Your task to perform on an android device: toggle sleep mode Image 0: 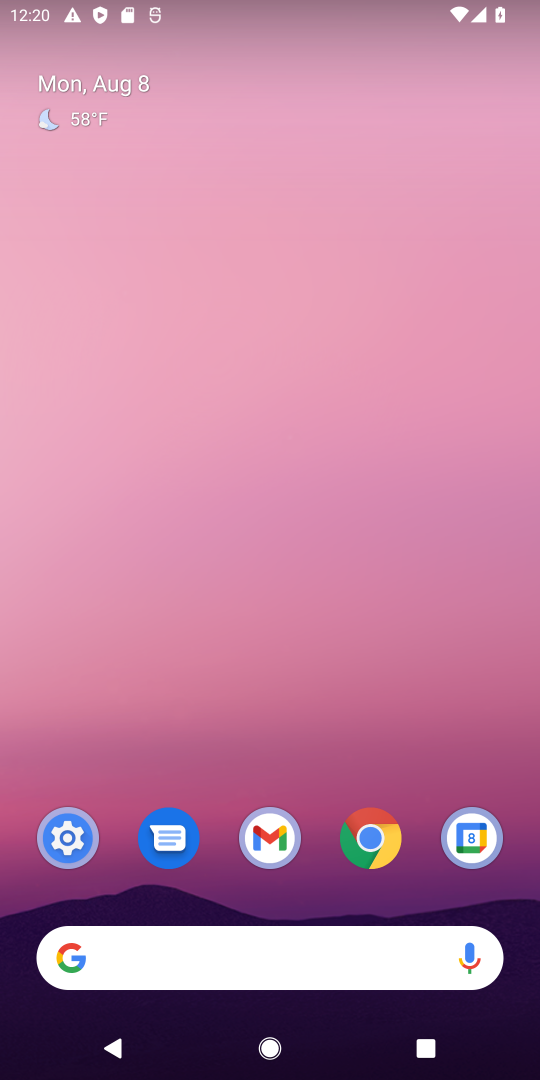
Step 0: press home button
Your task to perform on an android device: toggle sleep mode Image 1: 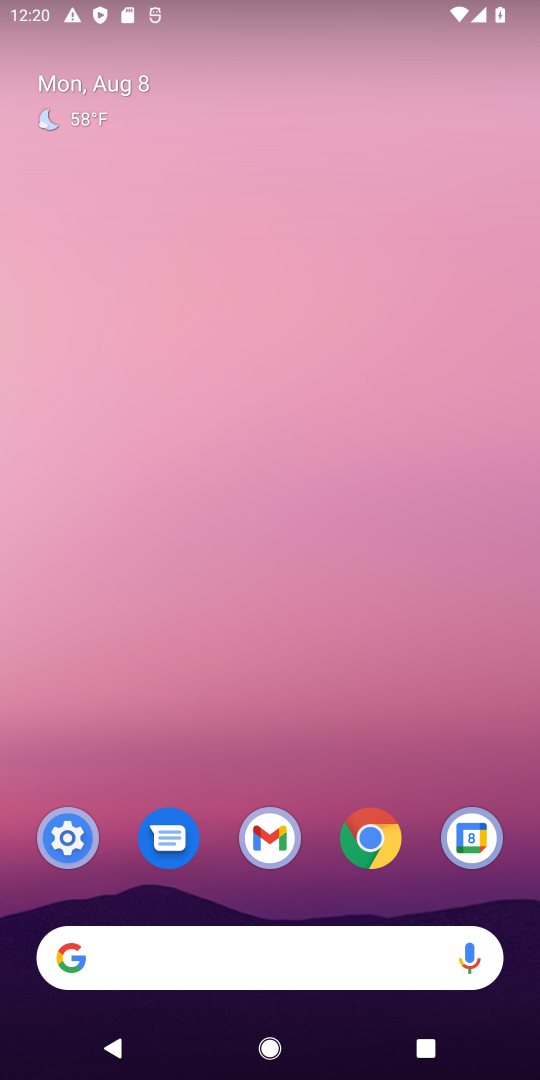
Step 1: drag from (341, 887) to (344, 97)
Your task to perform on an android device: toggle sleep mode Image 2: 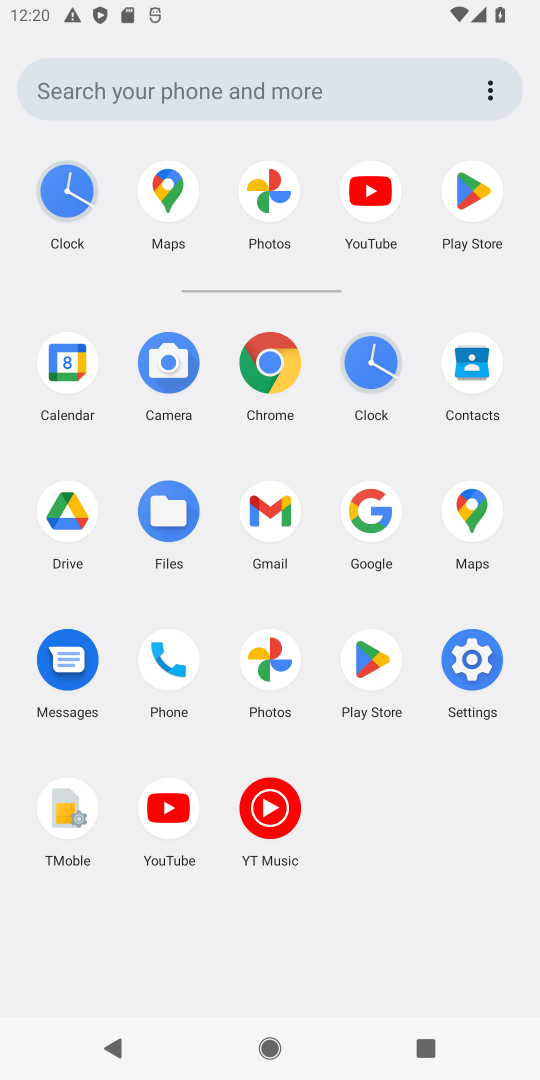
Step 2: click (477, 673)
Your task to perform on an android device: toggle sleep mode Image 3: 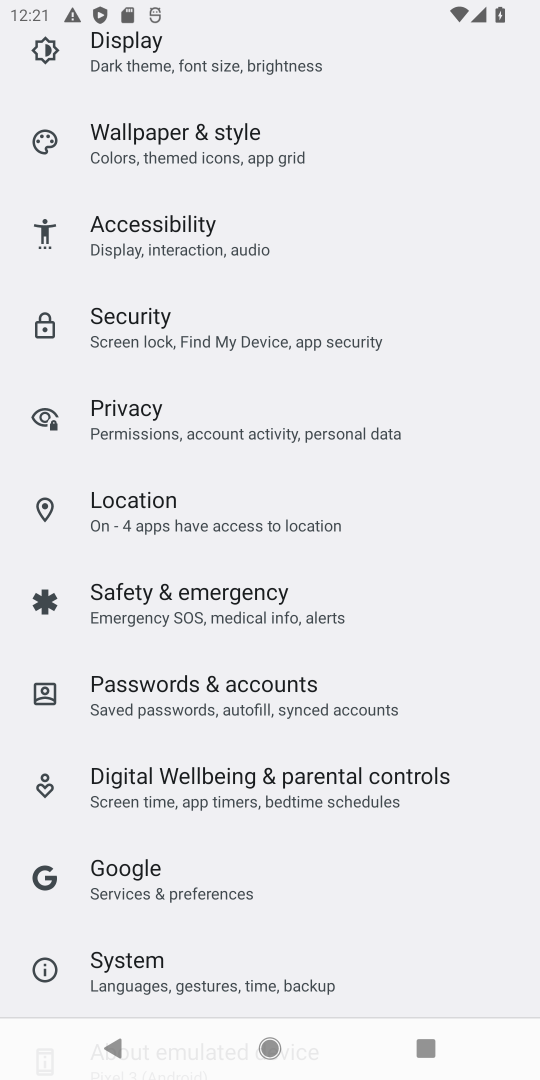
Step 3: drag from (452, 891) to (419, 351)
Your task to perform on an android device: toggle sleep mode Image 4: 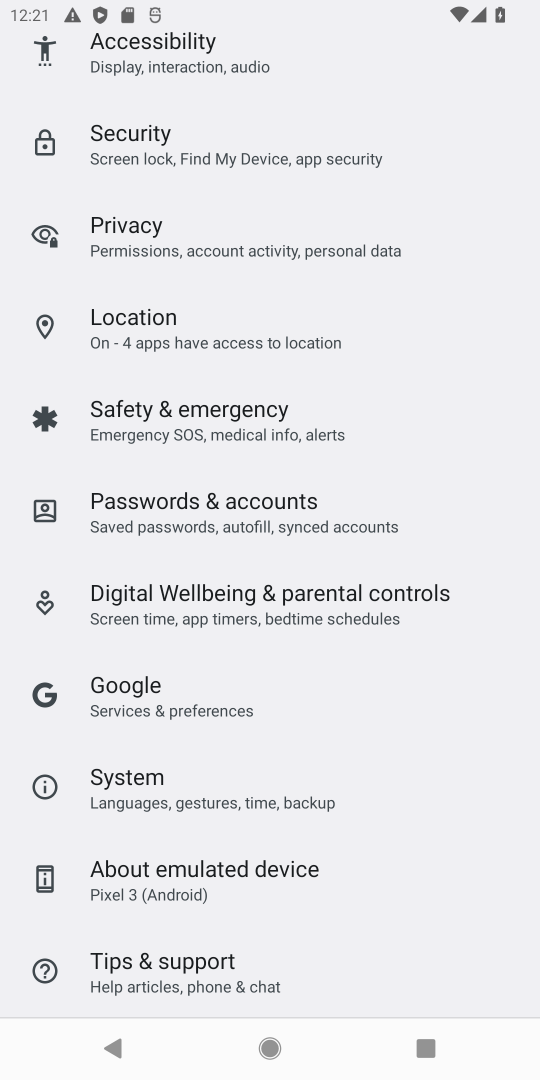
Step 4: drag from (438, 358) to (380, 1033)
Your task to perform on an android device: toggle sleep mode Image 5: 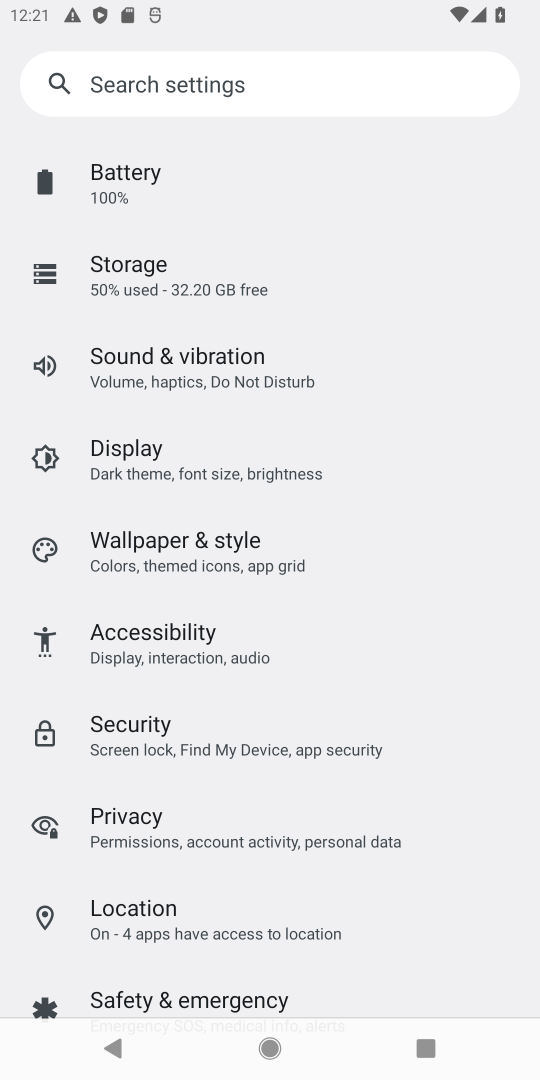
Step 5: drag from (357, 218) to (374, 761)
Your task to perform on an android device: toggle sleep mode Image 6: 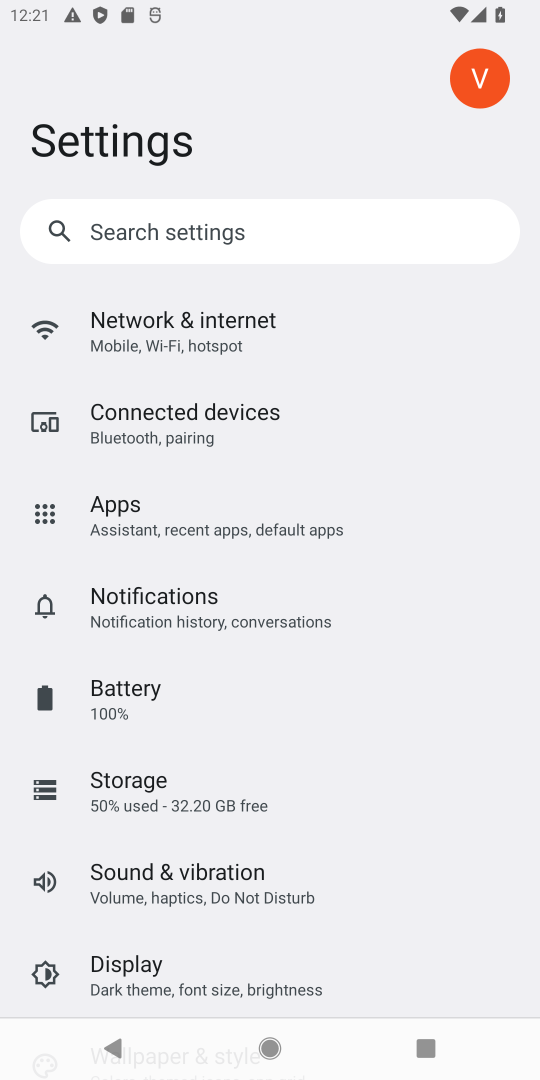
Step 6: click (124, 963)
Your task to perform on an android device: toggle sleep mode Image 7: 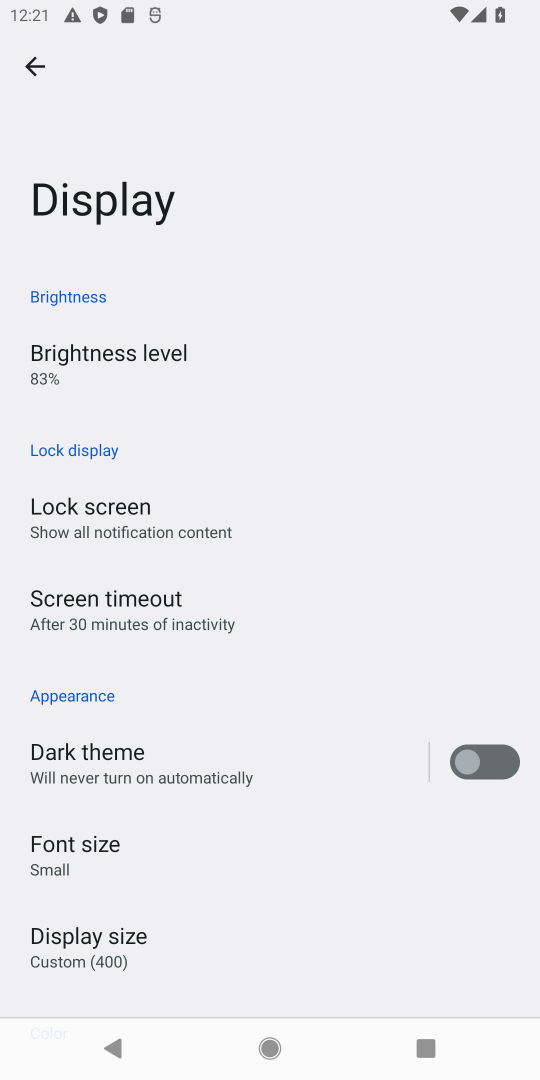
Step 7: task complete